Your task to perform on an android device: Search for the best rated desk chair on Article.com Image 0: 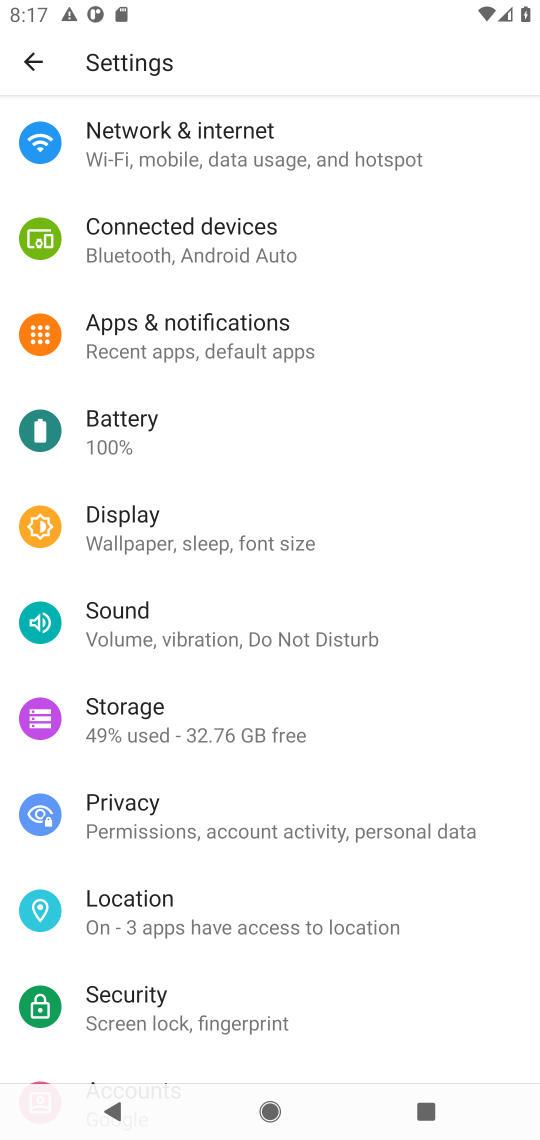
Step 0: click (360, 137)
Your task to perform on an android device: Search for the best rated desk chair on Article.com Image 1: 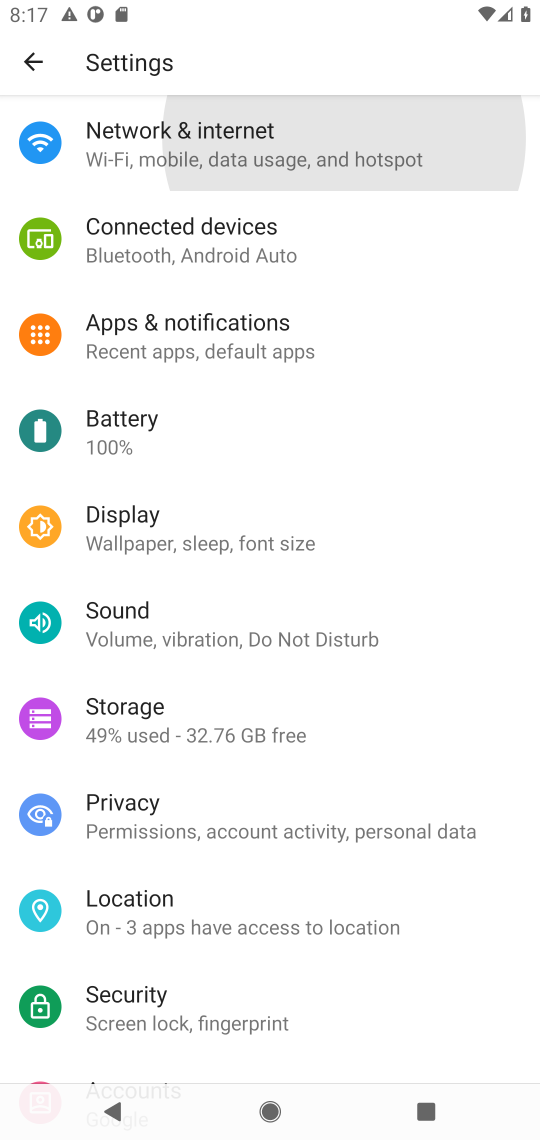
Step 1: task complete